Your task to perform on an android device: Search for dell xps on walmart.com, select the first entry, add it to the cart, then select checkout. Image 0: 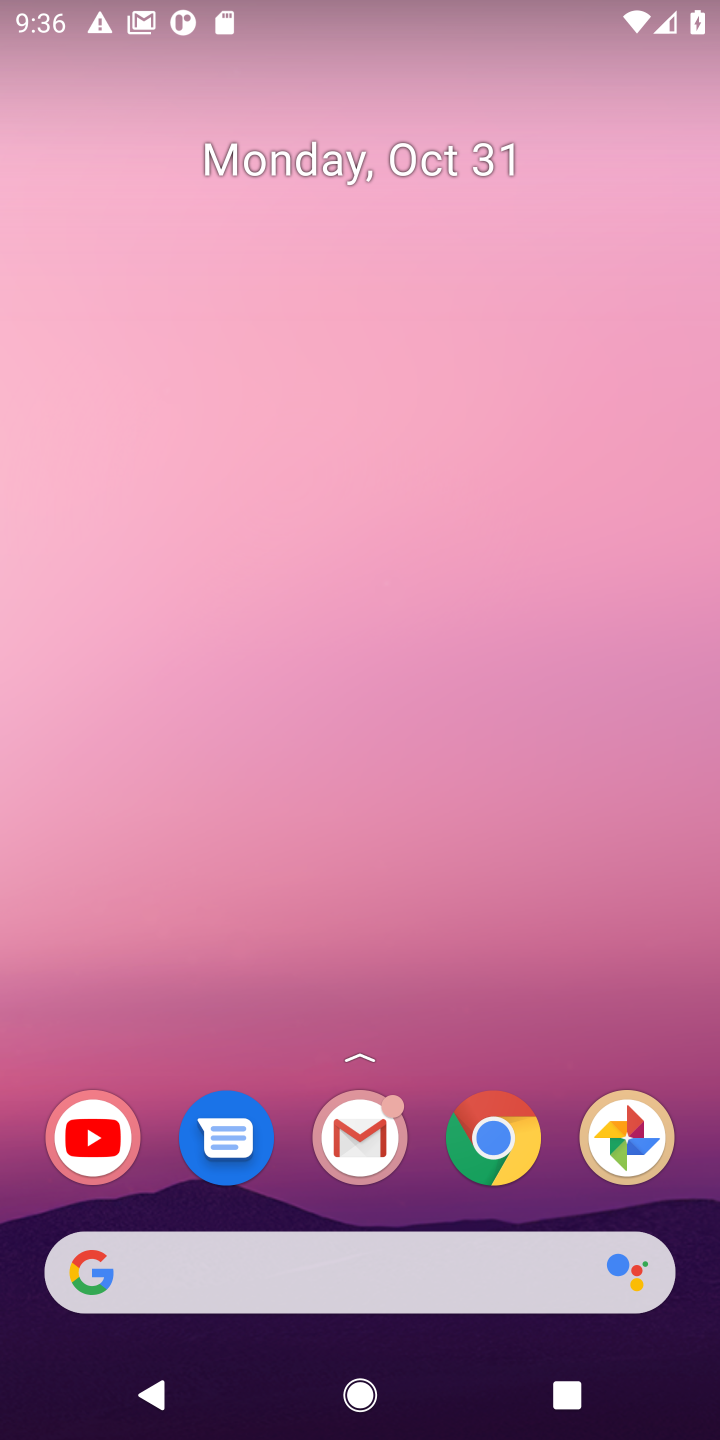
Step 0: drag from (453, 1339) to (451, 322)
Your task to perform on an android device: Search for dell xps on walmart.com, select the first entry, add it to the cart, then select checkout. Image 1: 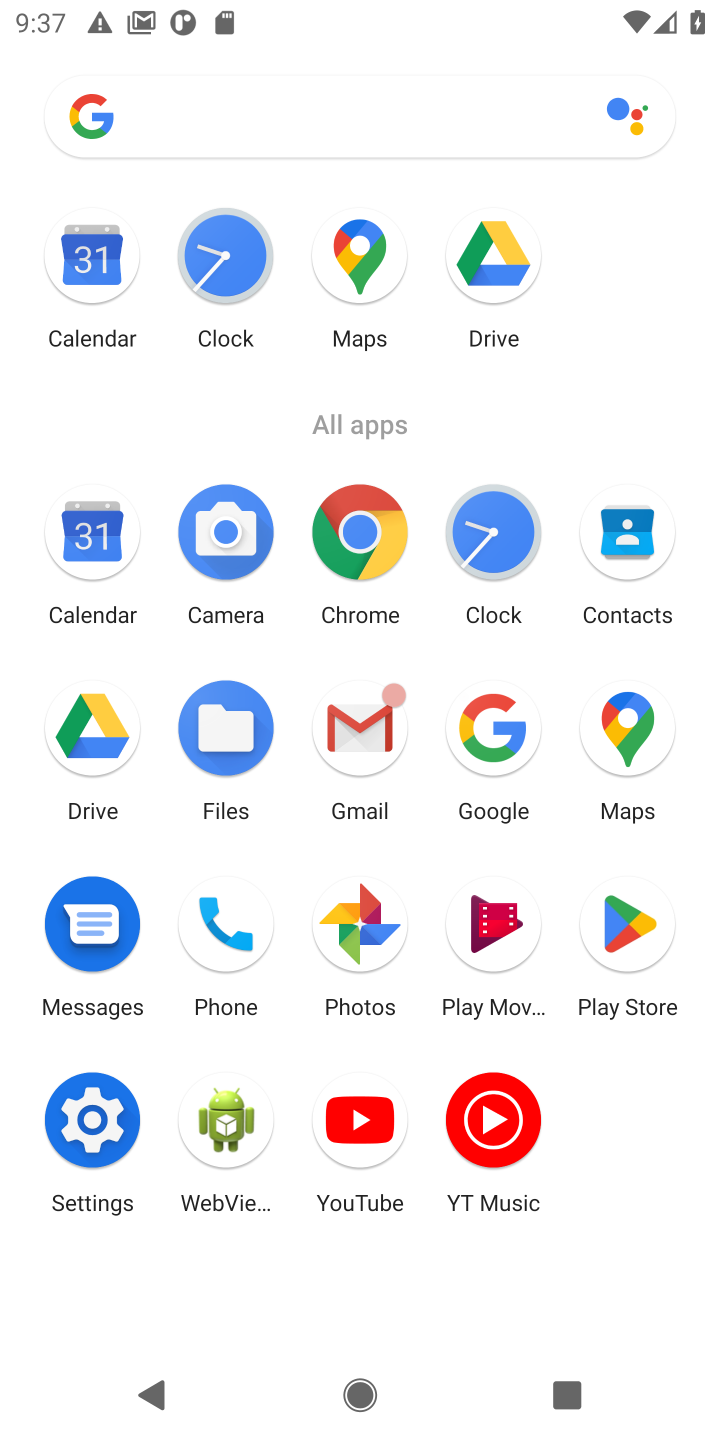
Step 1: click (358, 533)
Your task to perform on an android device: Search for dell xps on walmart.com, select the first entry, add it to the cart, then select checkout. Image 2: 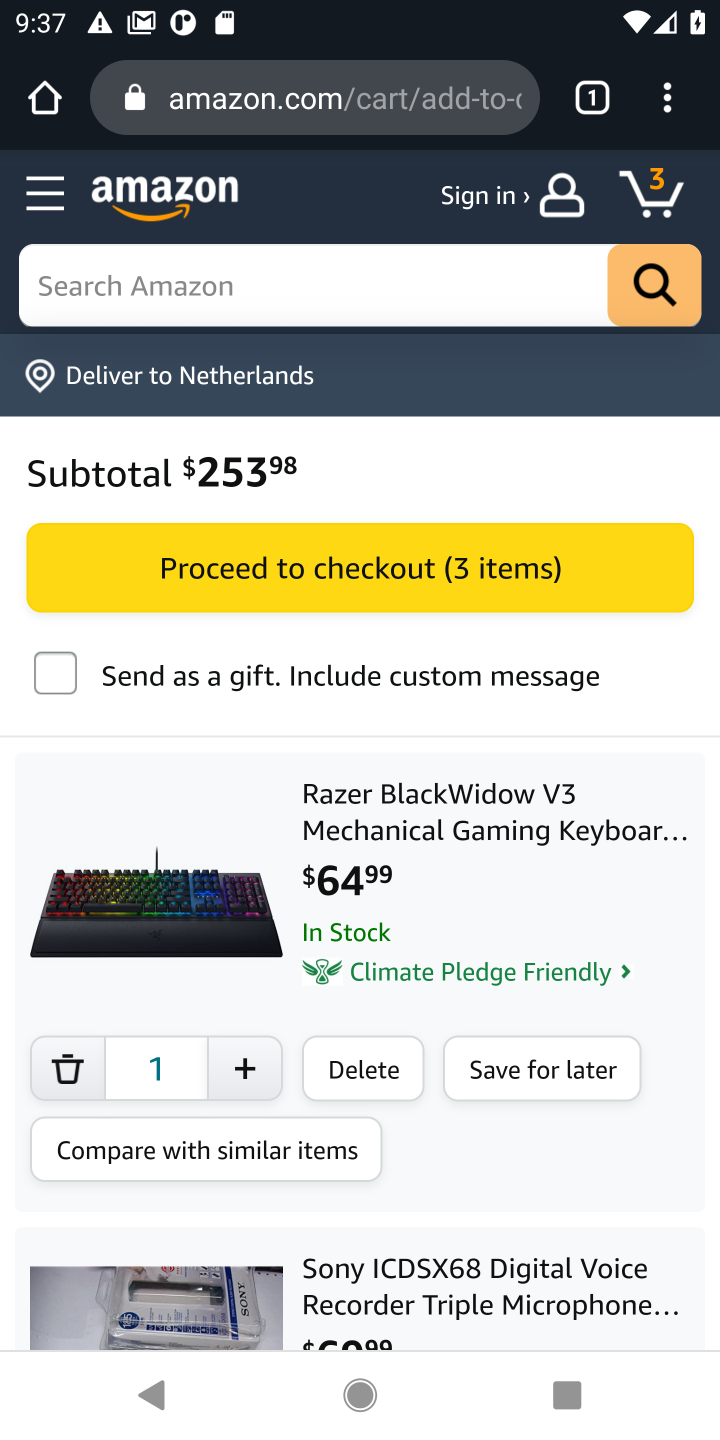
Step 2: click (262, 114)
Your task to perform on an android device: Search for dell xps on walmart.com, select the first entry, add it to the cart, then select checkout. Image 3: 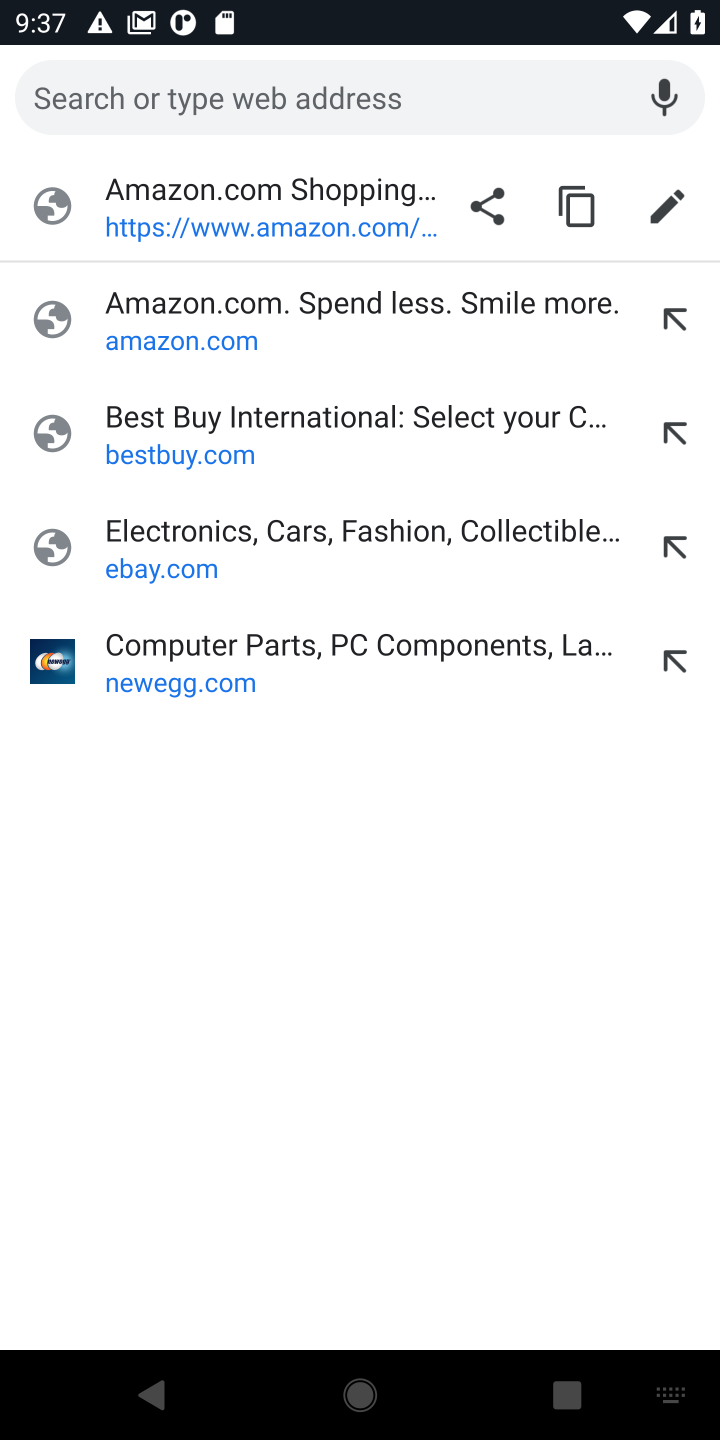
Step 3: type " walmart.com"
Your task to perform on an android device: Search for dell xps on walmart.com, select the first entry, add it to the cart, then select checkout. Image 4: 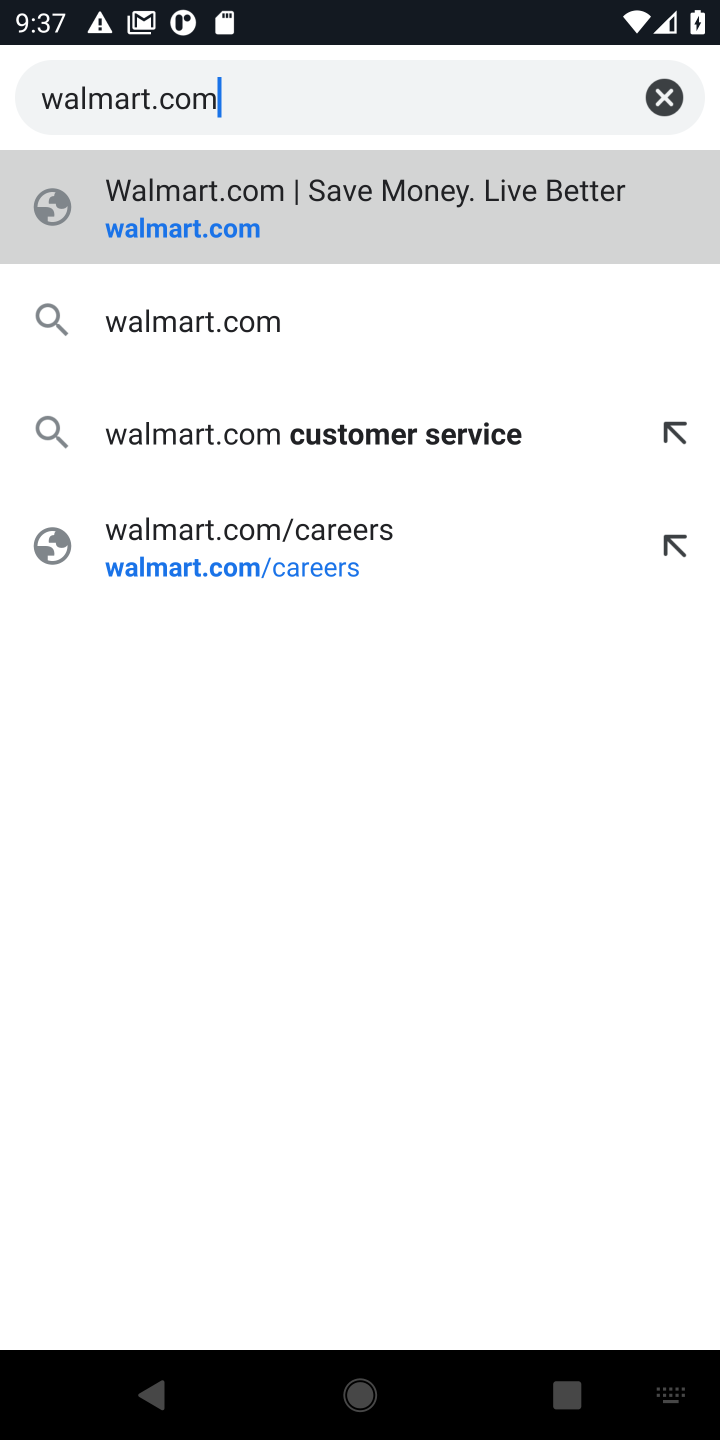
Step 4: click (162, 228)
Your task to perform on an android device: Search for dell xps on walmart.com, select the first entry, add it to the cart, then select checkout. Image 5: 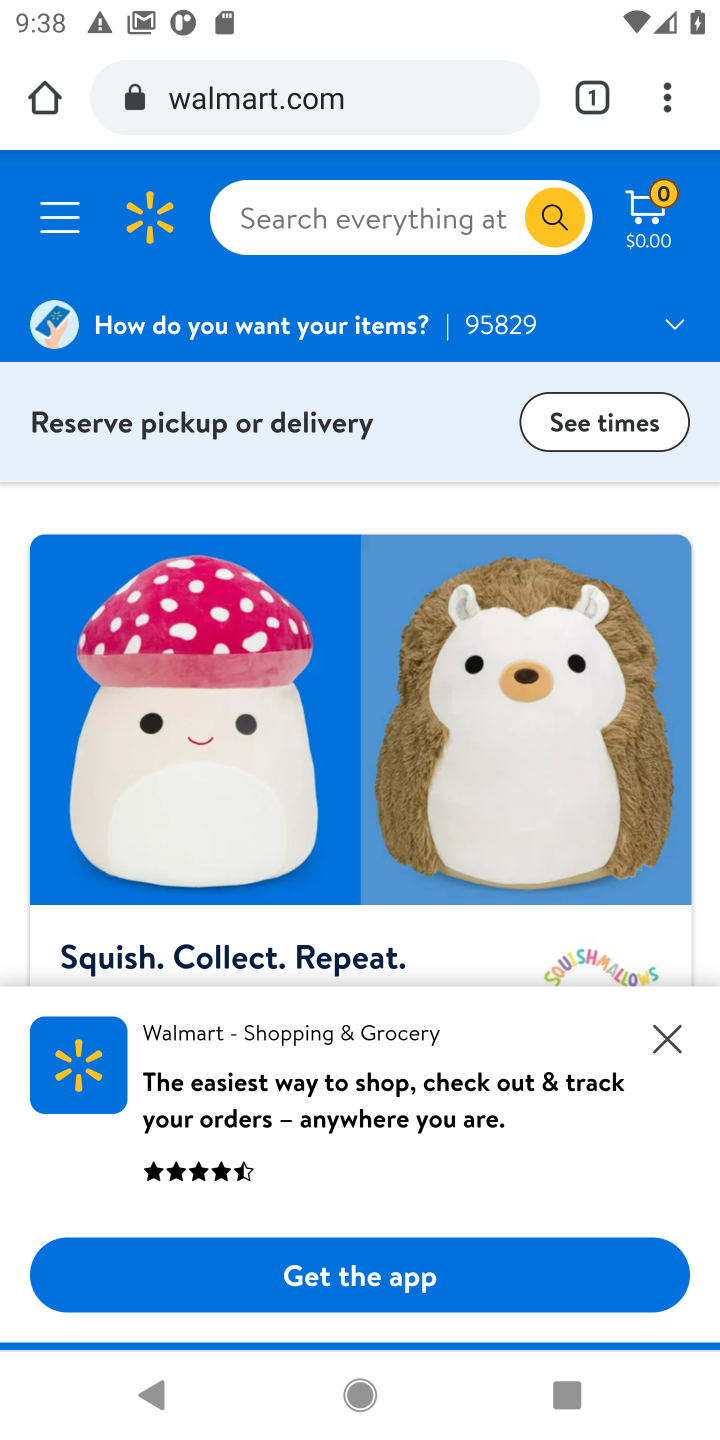
Step 5: click (336, 202)
Your task to perform on an android device: Search for dell xps on walmart.com, select the first entry, add it to the cart, then select checkout. Image 6: 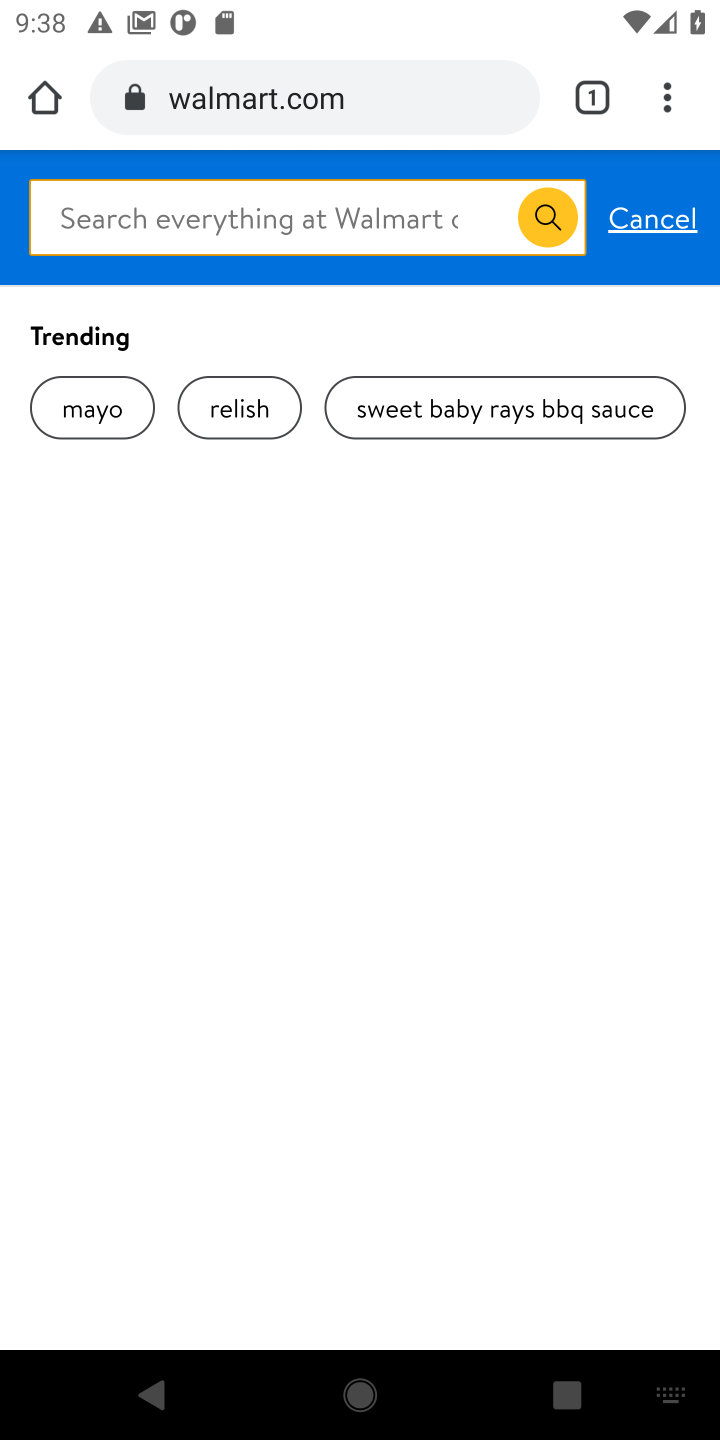
Step 6: type "dell xps "
Your task to perform on an android device: Search for dell xps on walmart.com, select the first entry, add it to the cart, then select checkout. Image 7: 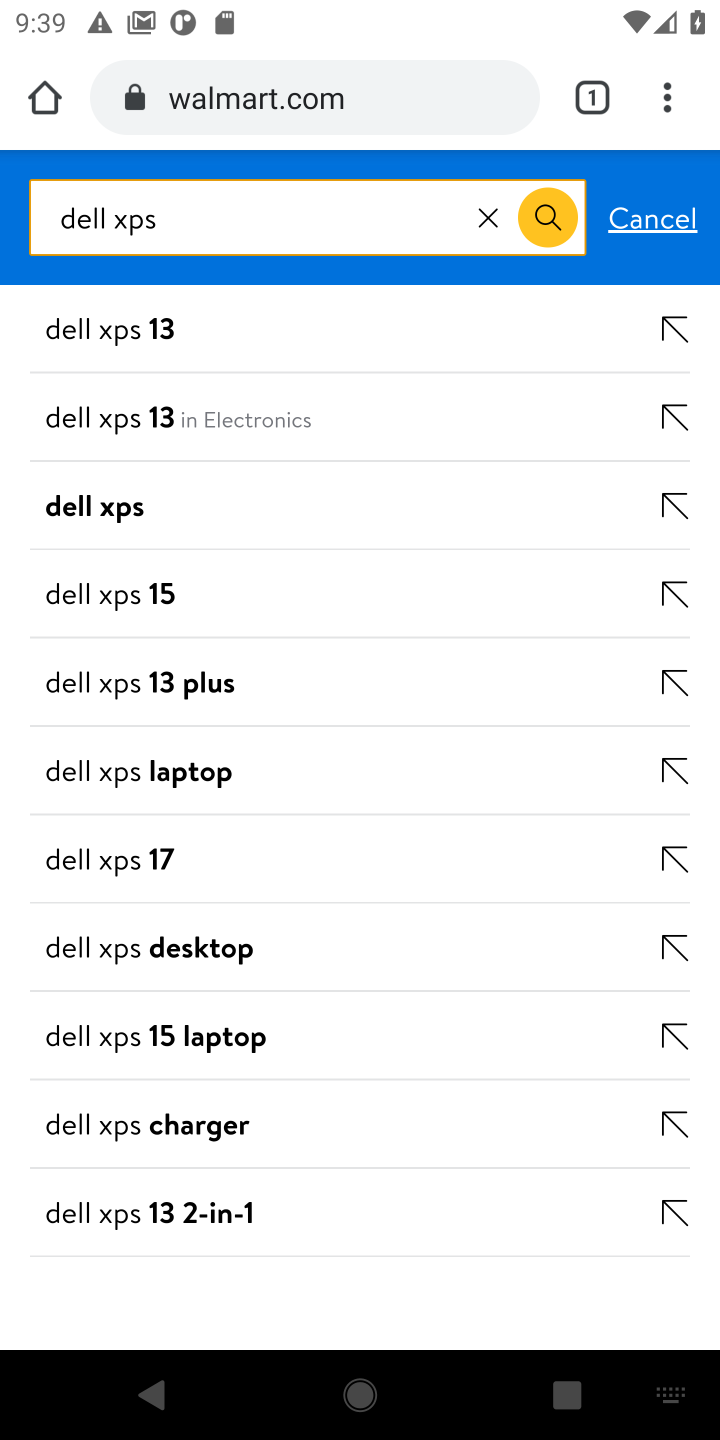
Step 7: click (80, 507)
Your task to perform on an android device: Search for dell xps on walmart.com, select the first entry, add it to the cart, then select checkout. Image 8: 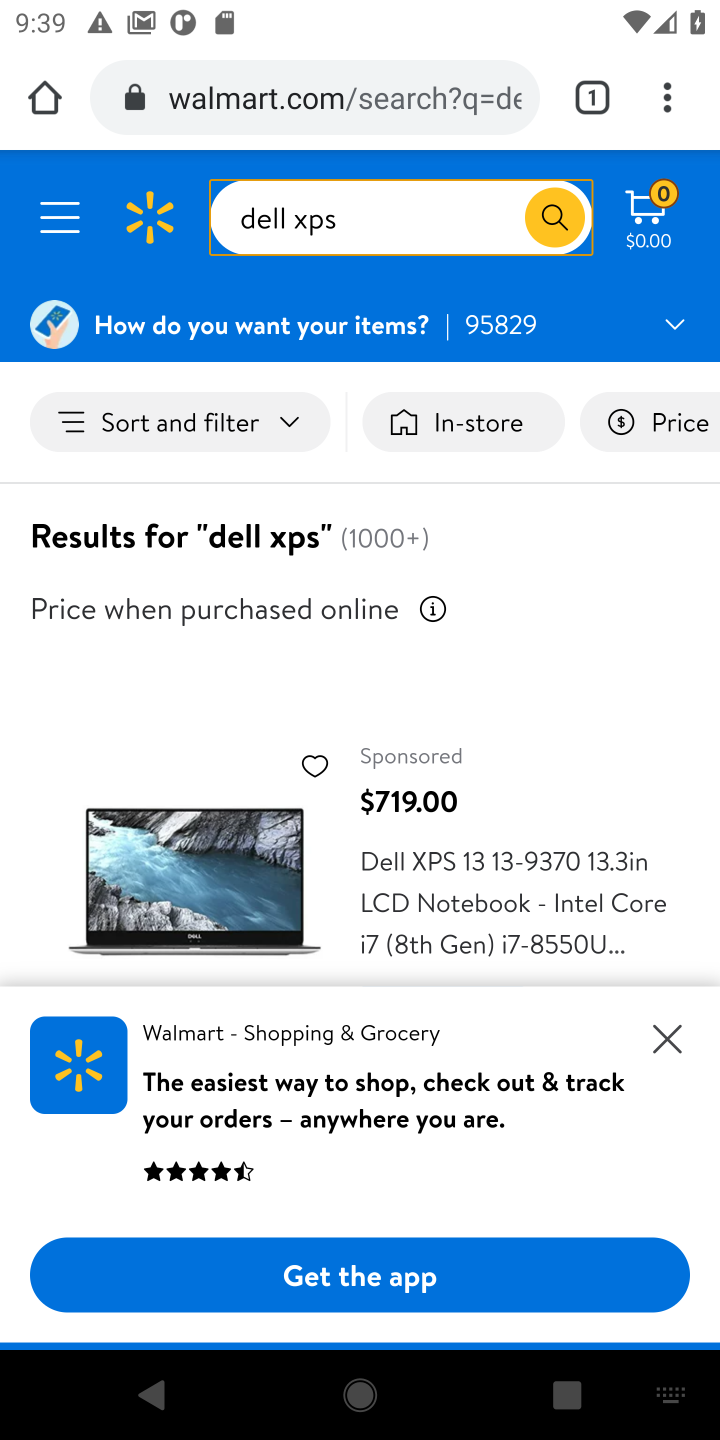
Step 8: drag from (477, 813) to (473, 331)
Your task to perform on an android device: Search for dell xps on walmart.com, select the first entry, add it to the cart, then select checkout. Image 9: 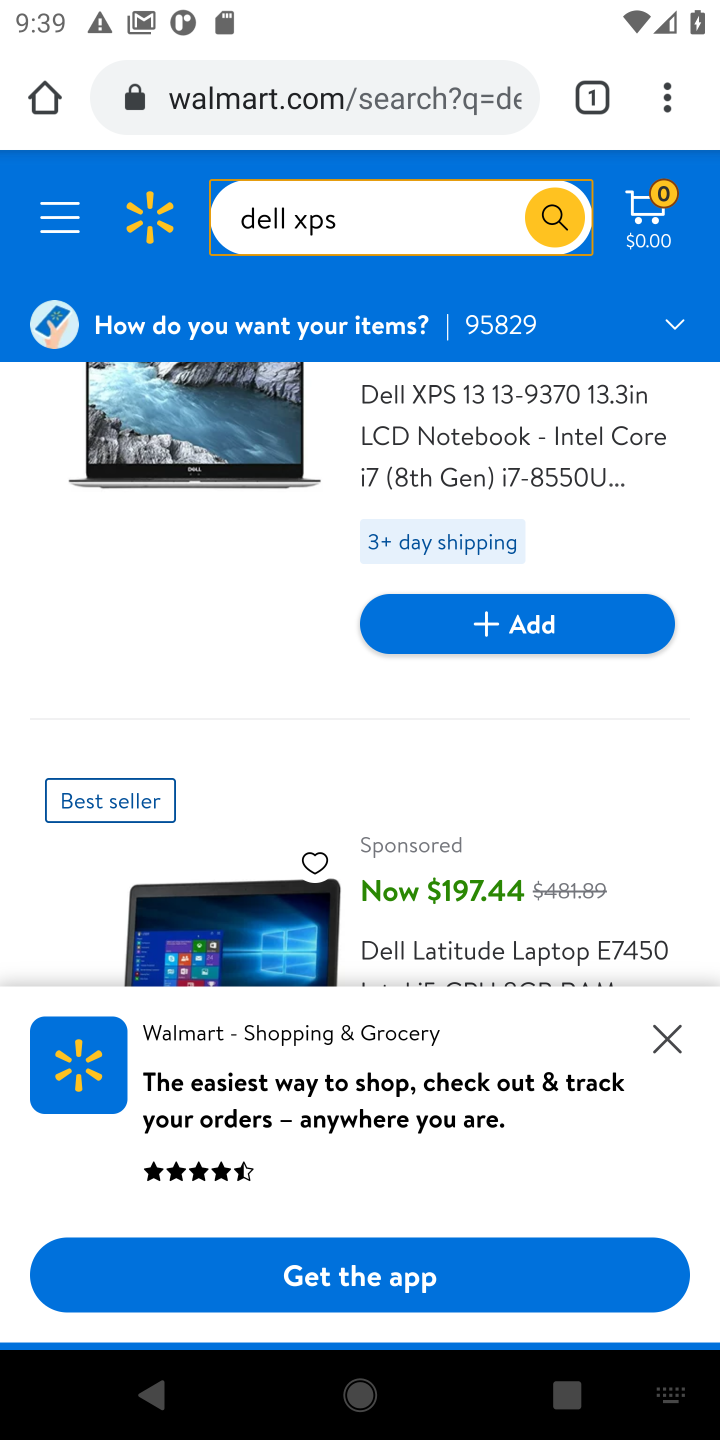
Step 9: click (192, 440)
Your task to perform on an android device: Search for dell xps on walmart.com, select the first entry, add it to the cart, then select checkout. Image 10: 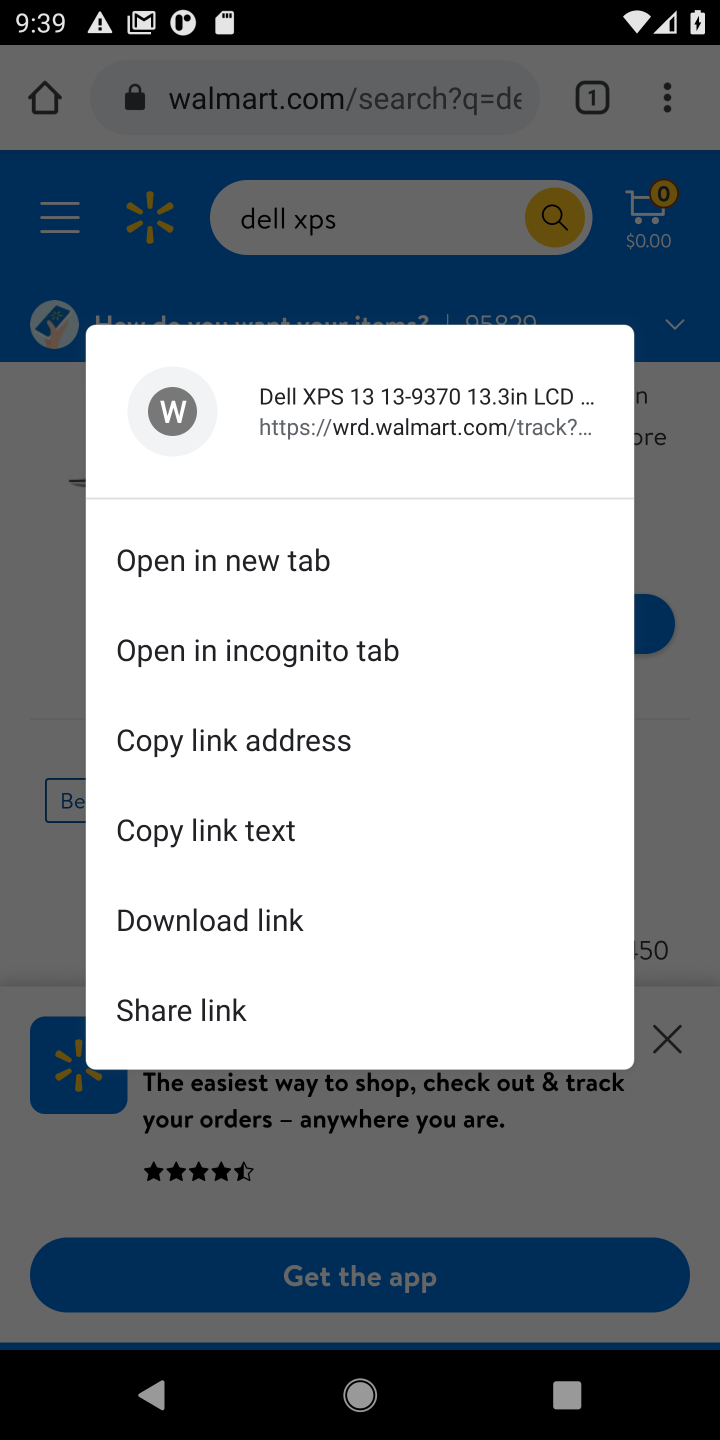
Step 10: click (680, 507)
Your task to perform on an android device: Search for dell xps on walmart.com, select the first entry, add it to the cart, then select checkout. Image 11: 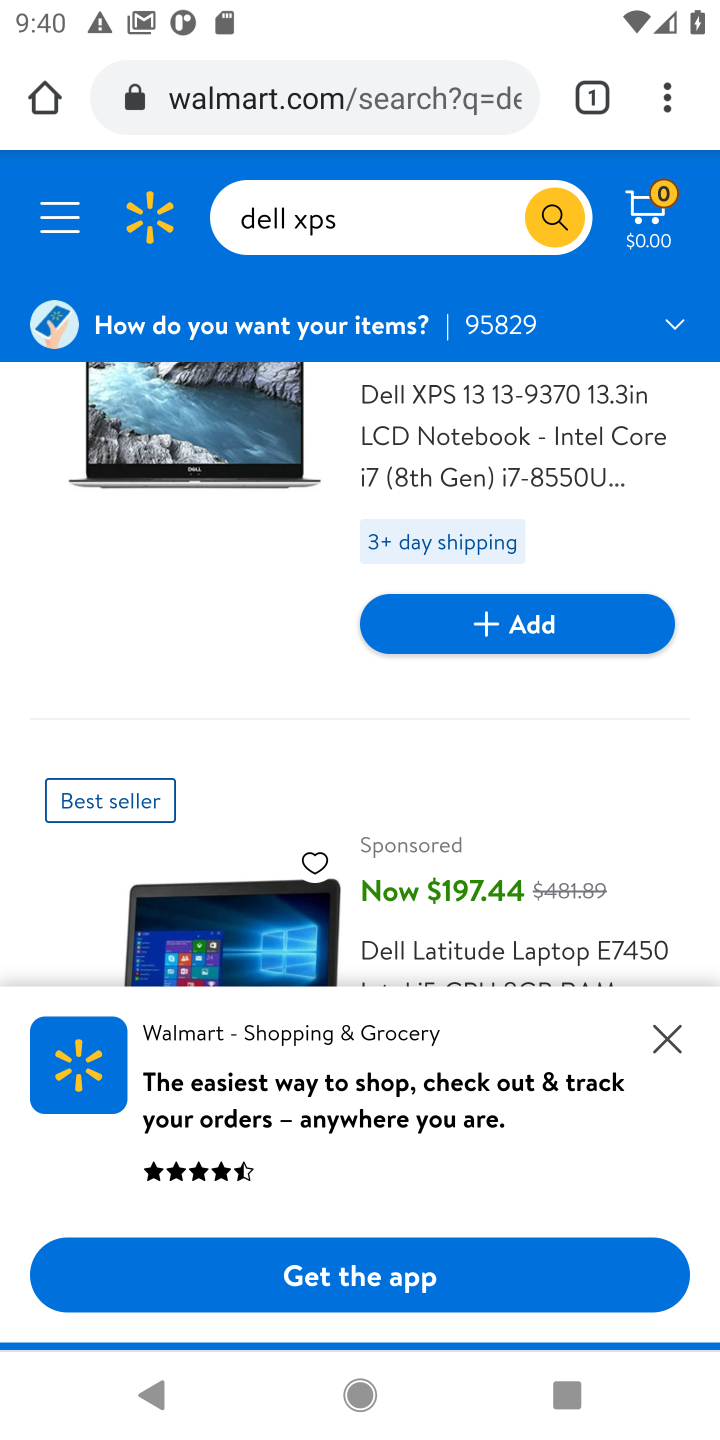
Step 11: click (238, 504)
Your task to perform on an android device: Search for dell xps on walmart.com, select the first entry, add it to the cart, then select checkout. Image 12: 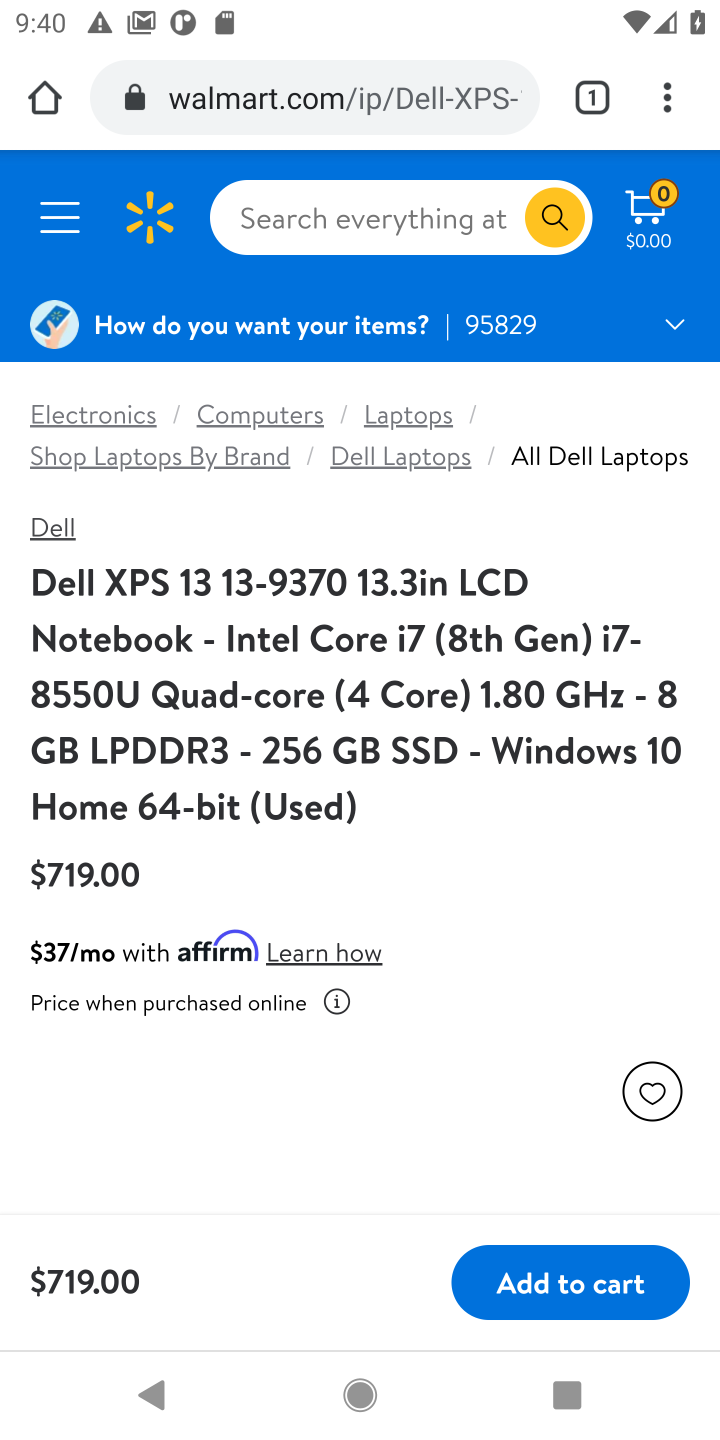
Step 12: click (551, 1280)
Your task to perform on an android device: Search for dell xps on walmart.com, select the first entry, add it to the cart, then select checkout. Image 13: 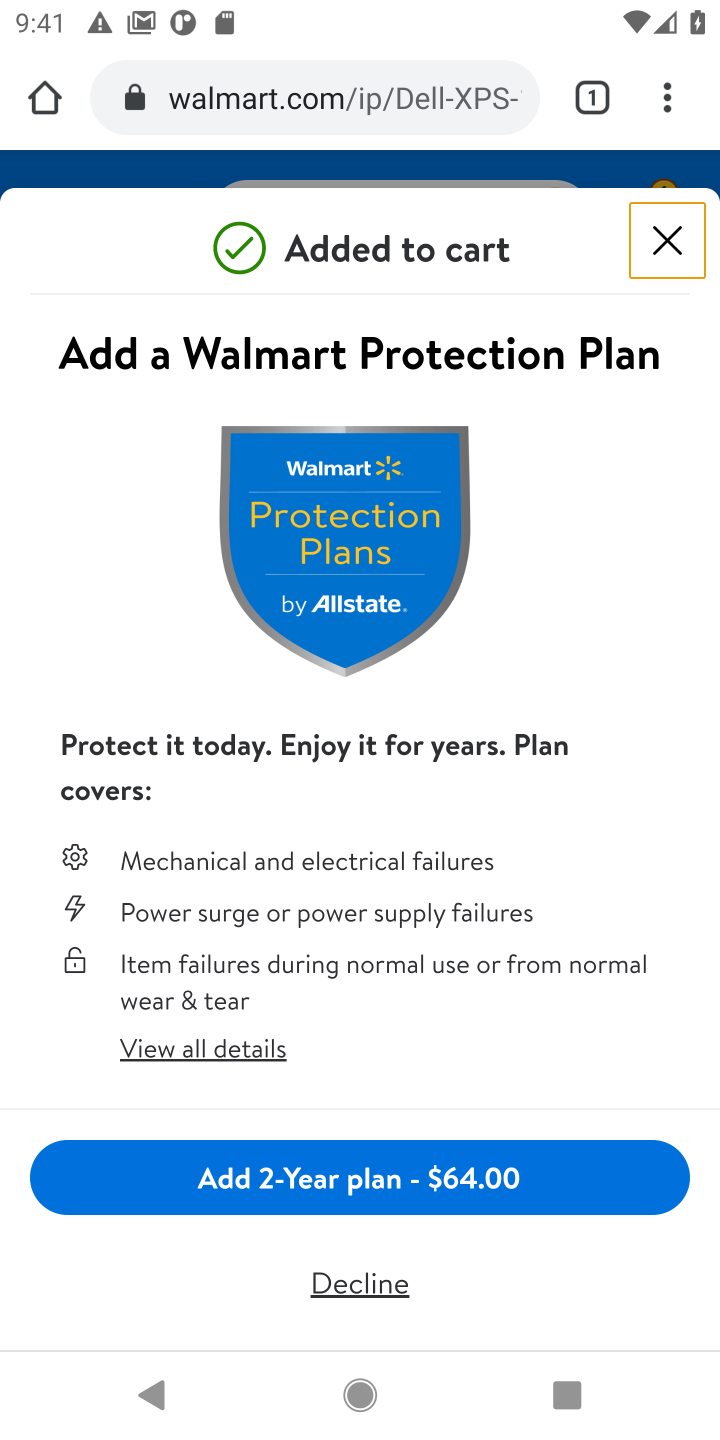
Step 13: task complete